Your task to perform on an android device: Open Reddit.com Image 0: 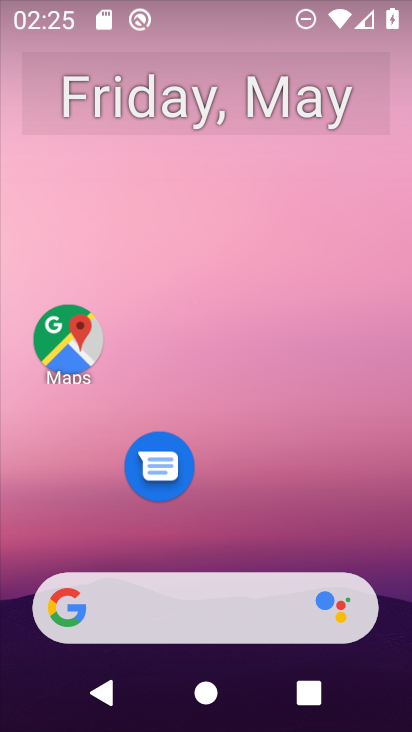
Step 0: click (212, 595)
Your task to perform on an android device: Open Reddit.com Image 1: 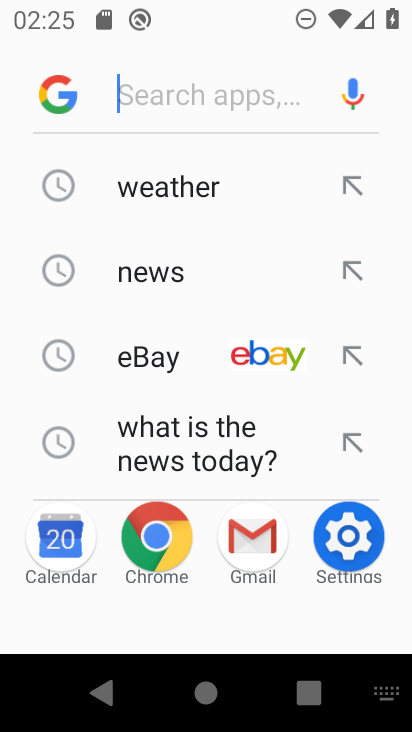
Step 1: type "reddit.com"
Your task to perform on an android device: Open Reddit.com Image 2: 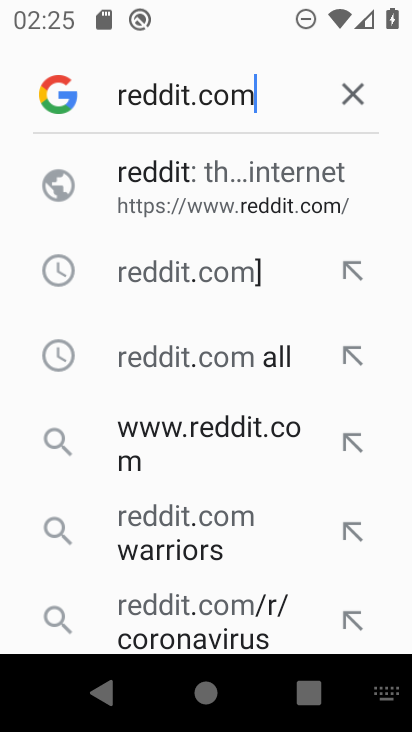
Step 2: click (275, 197)
Your task to perform on an android device: Open Reddit.com Image 3: 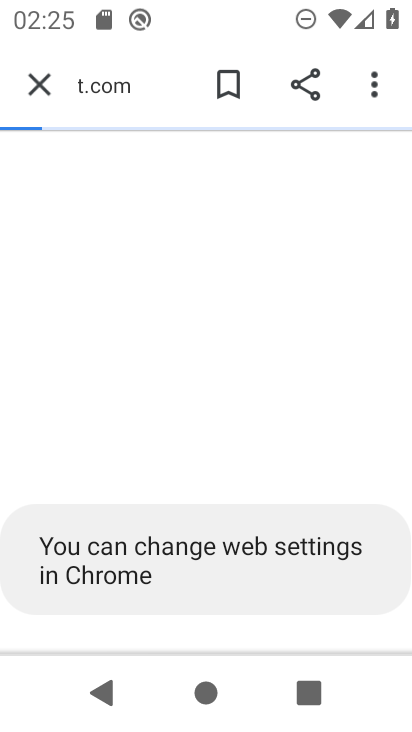
Step 3: task complete